Your task to perform on an android device: Go to ESPN.com Image 0: 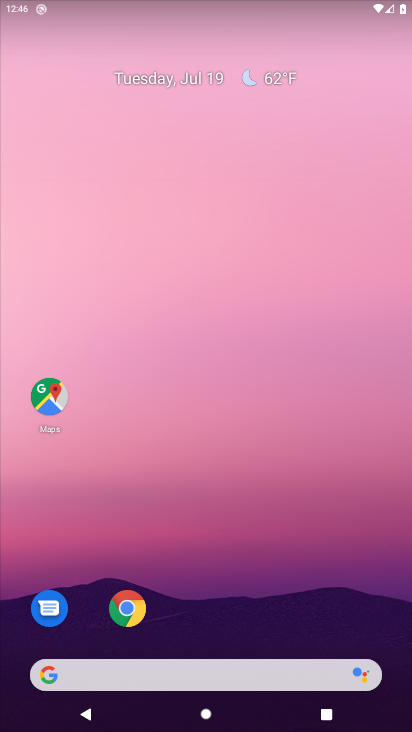
Step 0: press home button
Your task to perform on an android device: Go to ESPN.com Image 1: 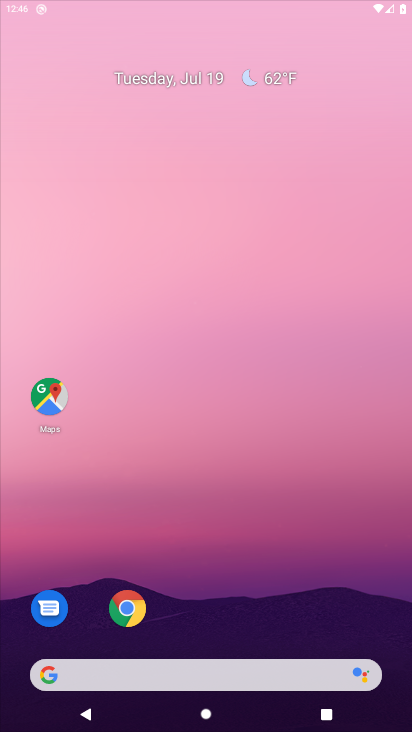
Step 1: drag from (218, 643) to (289, 102)
Your task to perform on an android device: Go to ESPN.com Image 2: 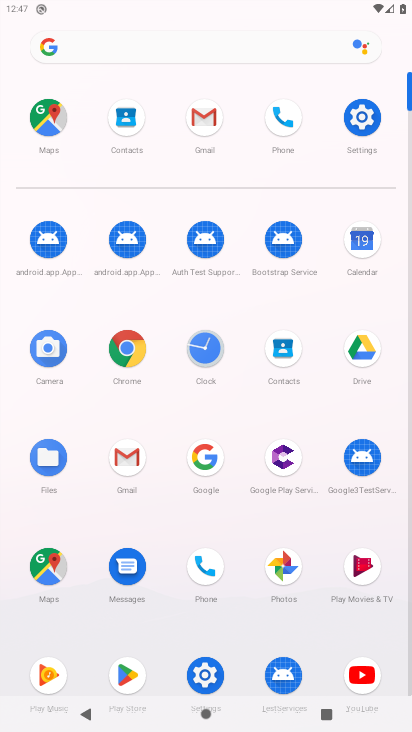
Step 2: click (127, 344)
Your task to perform on an android device: Go to ESPN.com Image 3: 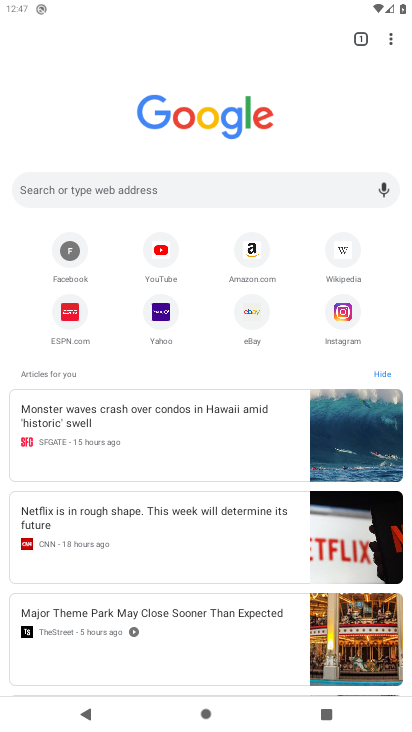
Step 3: click (69, 308)
Your task to perform on an android device: Go to ESPN.com Image 4: 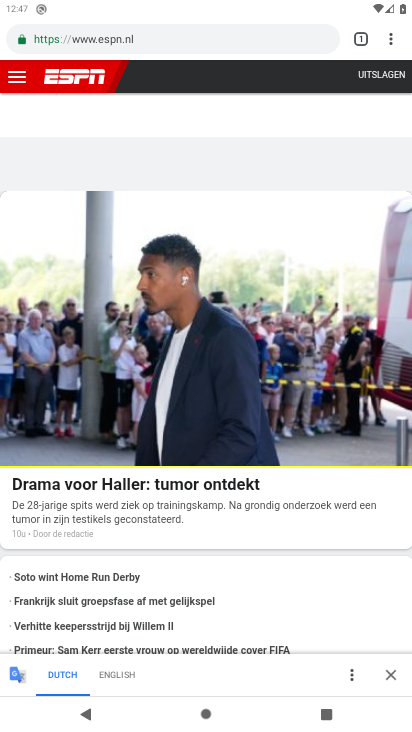
Step 4: drag from (201, 624) to (220, 223)
Your task to perform on an android device: Go to ESPN.com Image 5: 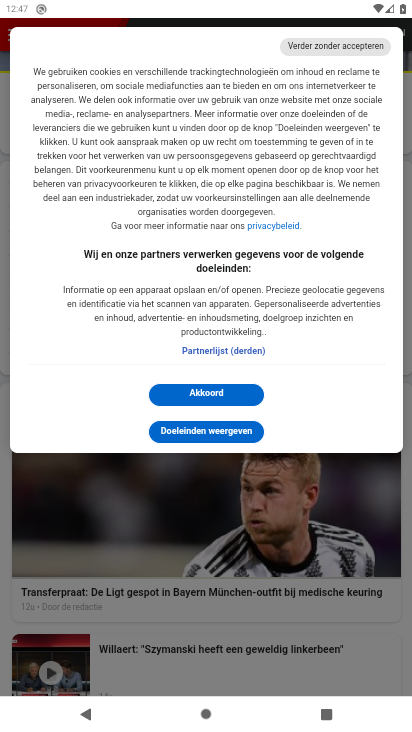
Step 5: click (206, 389)
Your task to perform on an android device: Go to ESPN.com Image 6: 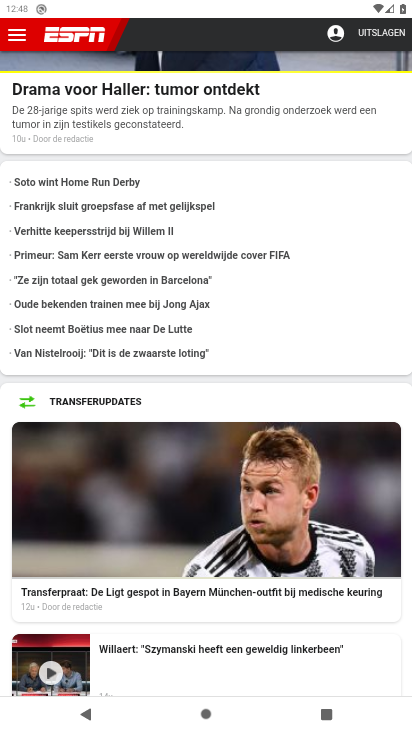
Step 6: task complete